Your task to perform on an android device: See recent photos Image 0: 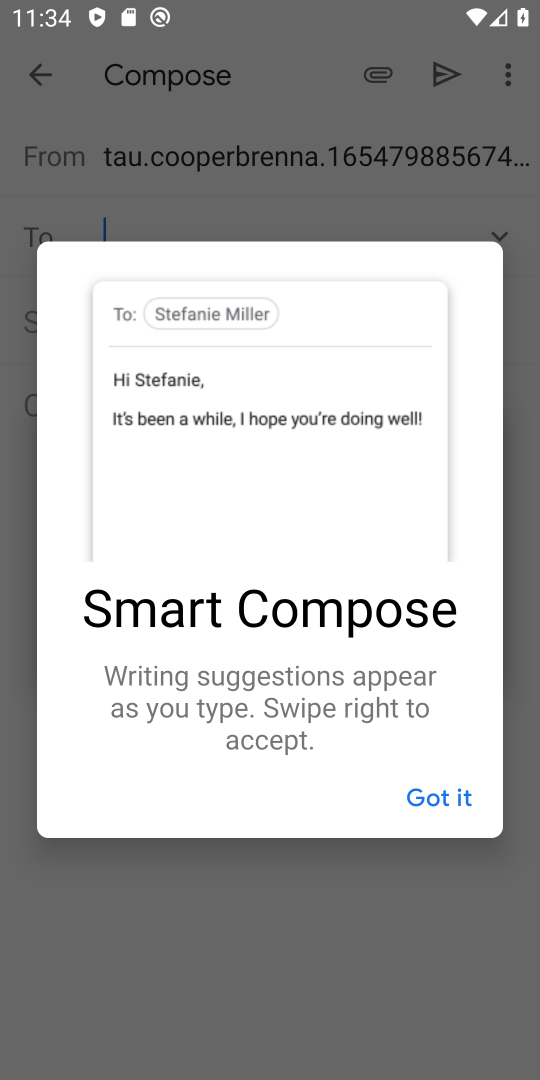
Step 0: press home button
Your task to perform on an android device: See recent photos Image 1: 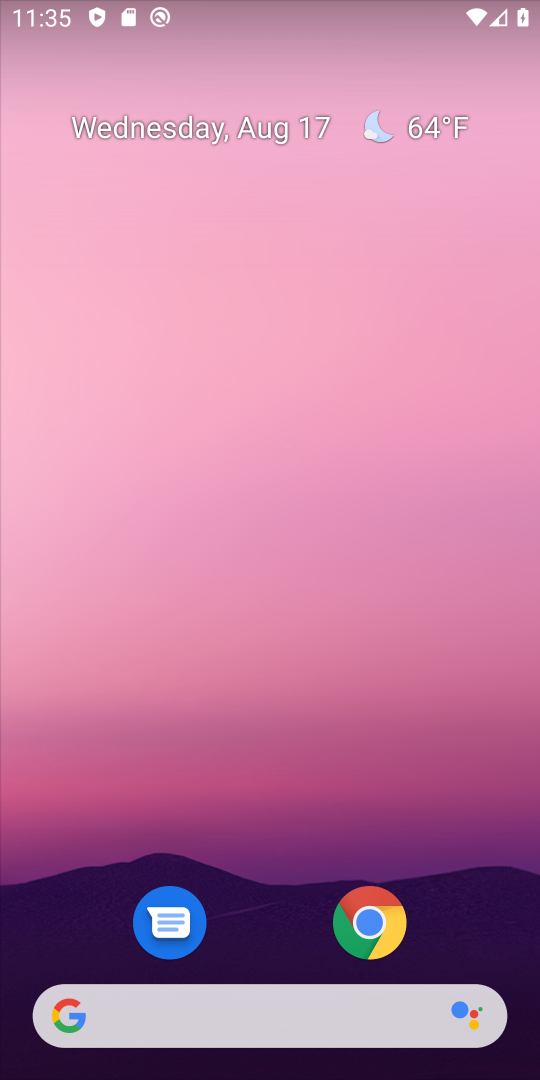
Step 1: drag from (257, 924) to (255, 269)
Your task to perform on an android device: See recent photos Image 2: 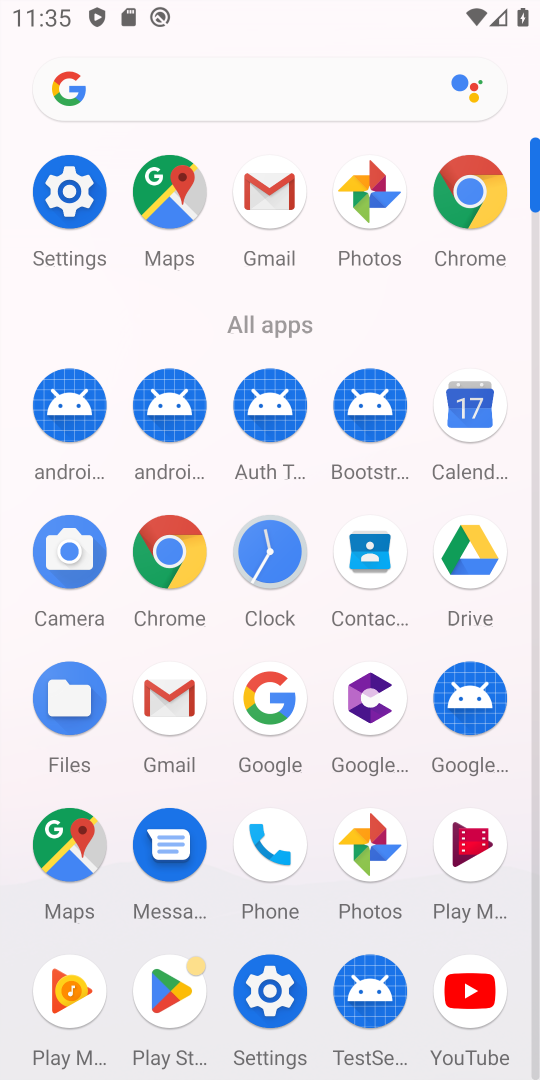
Step 2: click (373, 192)
Your task to perform on an android device: See recent photos Image 3: 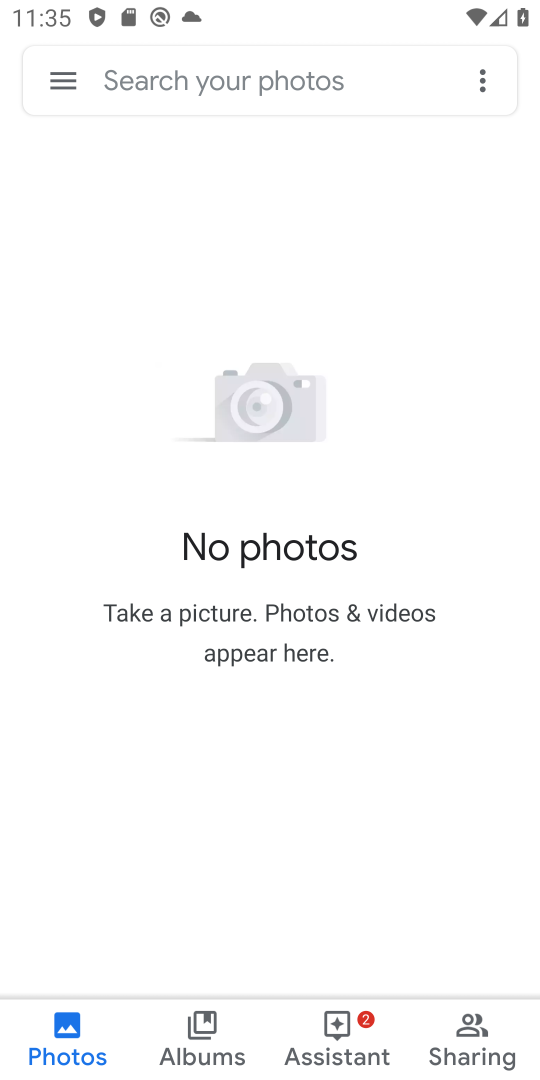
Step 3: task complete